Your task to perform on an android device: Clear the cart on amazon. Add "asus rog" to the cart on amazon, then select checkout. Image 0: 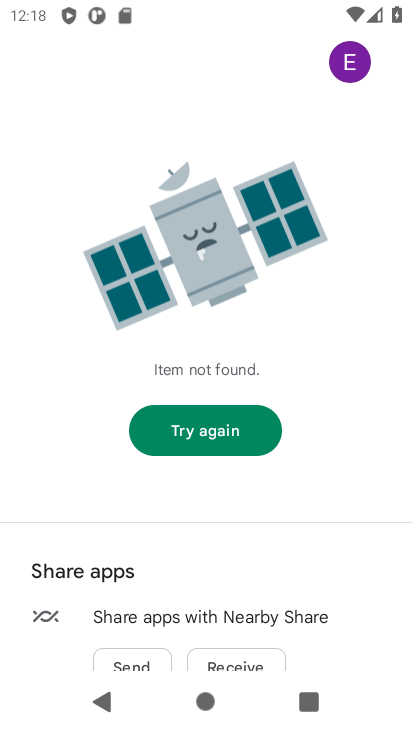
Step 0: press home button
Your task to perform on an android device: Clear the cart on amazon. Add "asus rog" to the cart on amazon, then select checkout. Image 1: 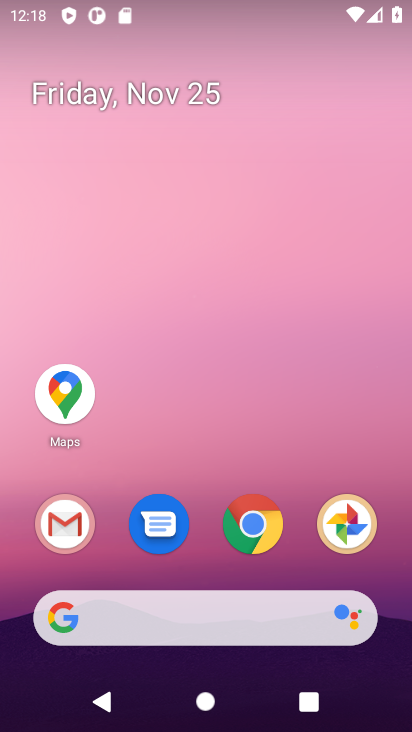
Step 1: click (253, 536)
Your task to perform on an android device: Clear the cart on amazon. Add "asus rog" to the cart on amazon, then select checkout. Image 2: 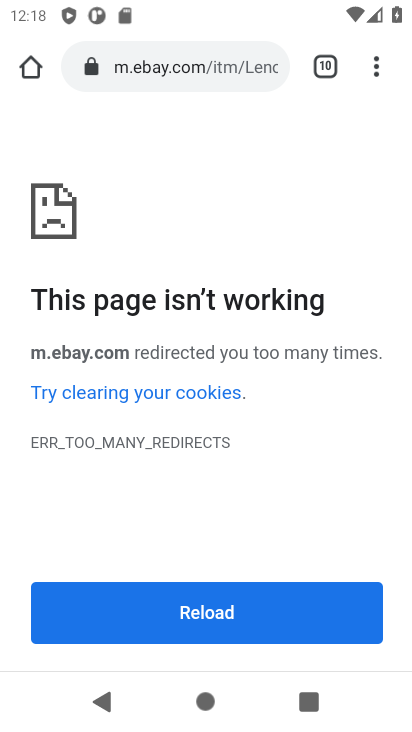
Step 2: click (158, 71)
Your task to perform on an android device: Clear the cart on amazon. Add "asus rog" to the cart on amazon, then select checkout. Image 3: 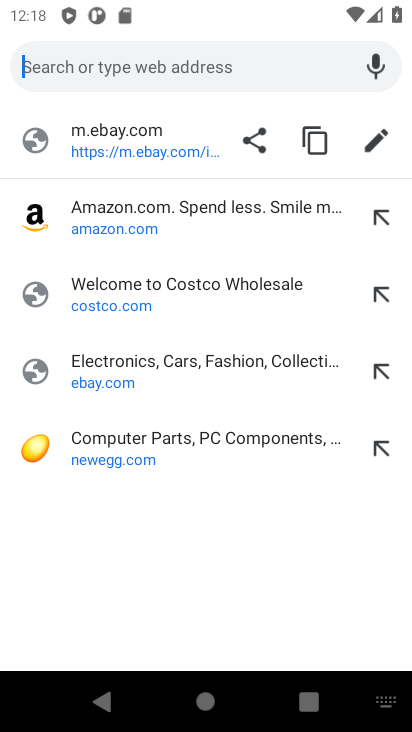
Step 3: click (94, 227)
Your task to perform on an android device: Clear the cart on amazon. Add "asus rog" to the cart on amazon, then select checkout. Image 4: 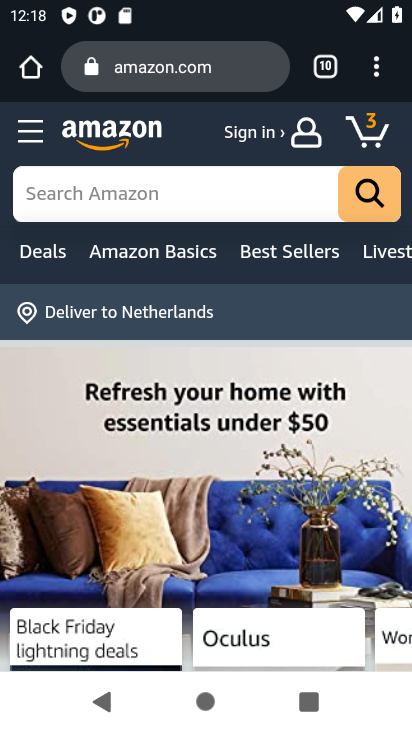
Step 4: click (364, 133)
Your task to perform on an android device: Clear the cart on amazon. Add "asus rog" to the cart on amazon, then select checkout. Image 5: 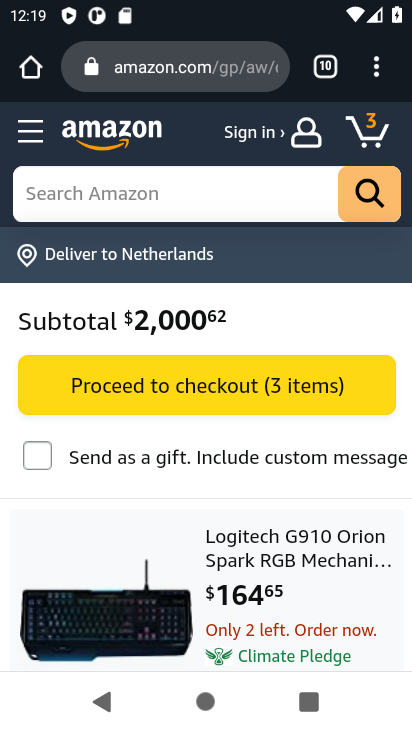
Step 5: drag from (132, 554) to (156, 316)
Your task to perform on an android device: Clear the cart on amazon. Add "asus rog" to the cart on amazon, then select checkout. Image 6: 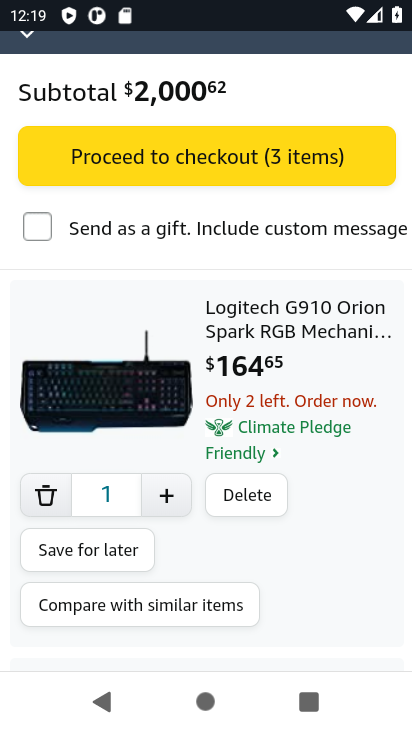
Step 6: click (253, 495)
Your task to perform on an android device: Clear the cart on amazon. Add "asus rog" to the cart on amazon, then select checkout. Image 7: 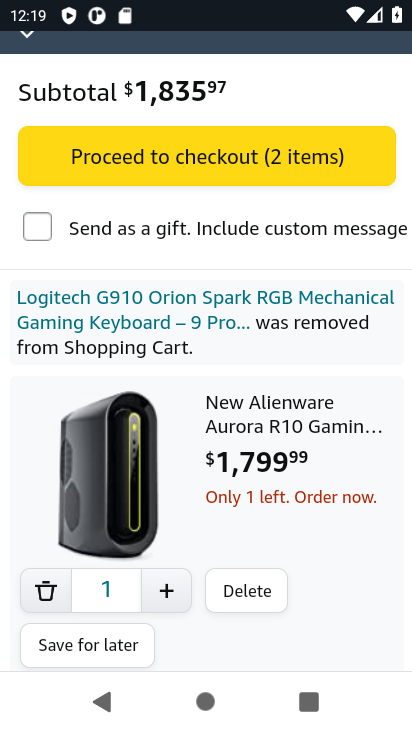
Step 7: click (244, 583)
Your task to perform on an android device: Clear the cart on amazon. Add "asus rog" to the cart on amazon, then select checkout. Image 8: 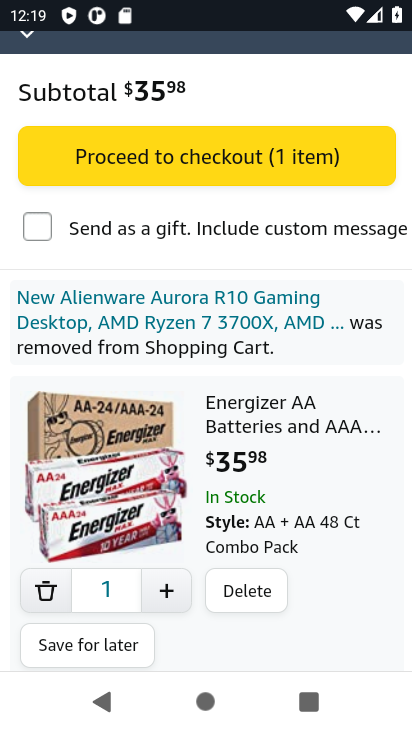
Step 8: click (244, 594)
Your task to perform on an android device: Clear the cart on amazon. Add "asus rog" to the cart on amazon, then select checkout. Image 9: 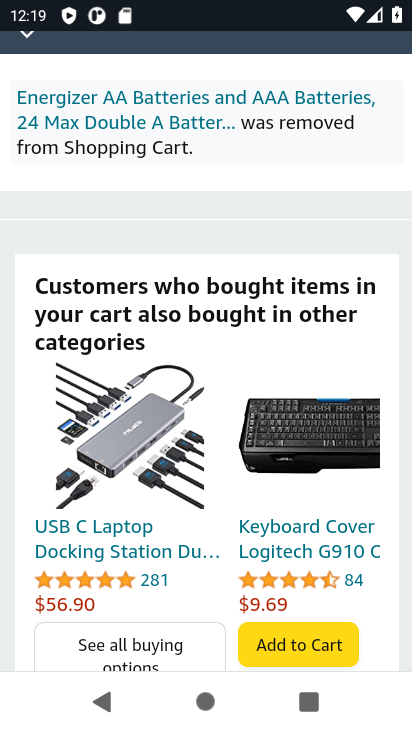
Step 9: drag from (205, 400) to (183, 591)
Your task to perform on an android device: Clear the cart on amazon. Add "asus rog" to the cart on amazon, then select checkout. Image 10: 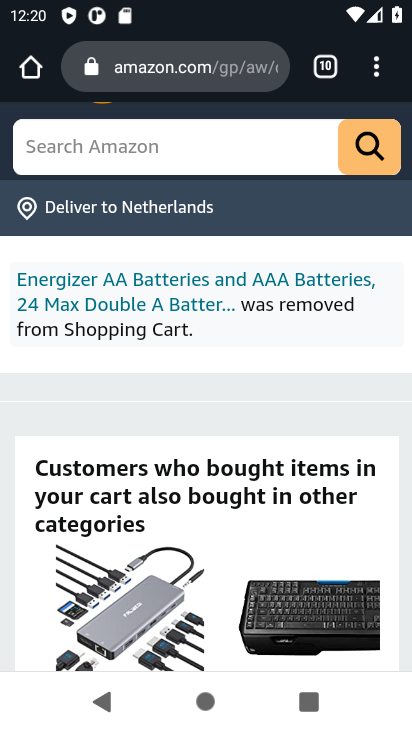
Step 10: click (107, 152)
Your task to perform on an android device: Clear the cart on amazon. Add "asus rog" to the cart on amazon, then select checkout. Image 11: 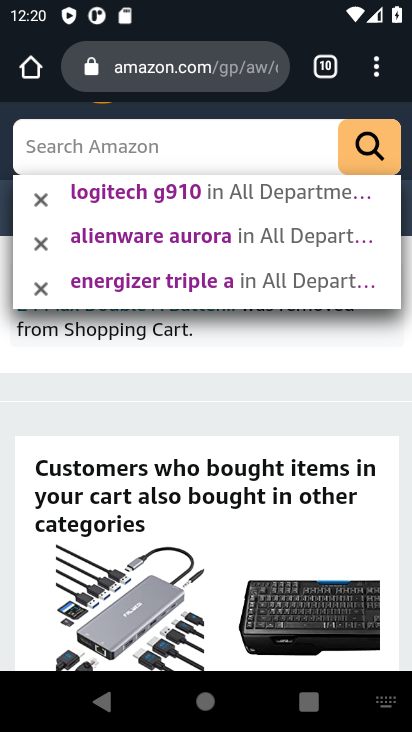
Step 11: type "asus rog"
Your task to perform on an android device: Clear the cart on amazon. Add "asus rog" to the cart on amazon, then select checkout. Image 12: 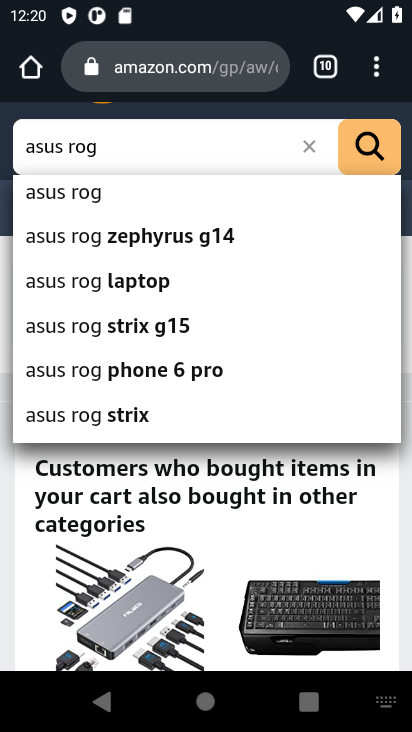
Step 12: click (65, 198)
Your task to perform on an android device: Clear the cart on amazon. Add "asus rog" to the cart on amazon, then select checkout. Image 13: 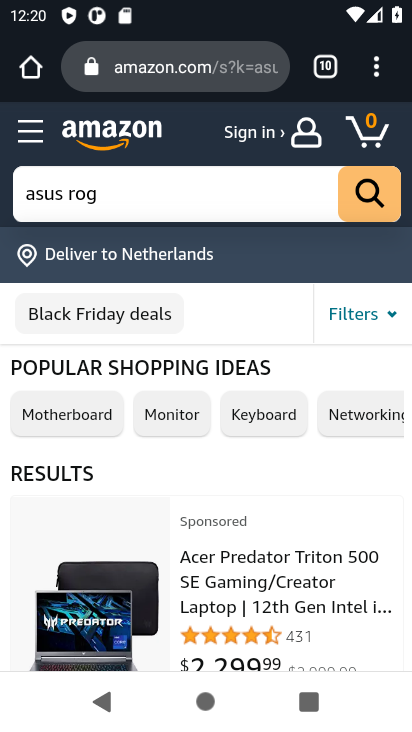
Step 13: drag from (131, 481) to (141, 373)
Your task to perform on an android device: Clear the cart on amazon. Add "asus rog" to the cart on amazon, then select checkout. Image 14: 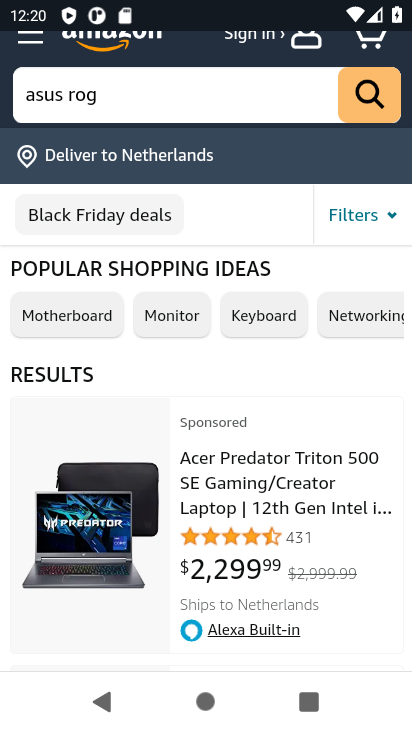
Step 14: drag from (140, 435) to (155, 303)
Your task to perform on an android device: Clear the cart on amazon. Add "asus rog" to the cart on amazon, then select checkout. Image 15: 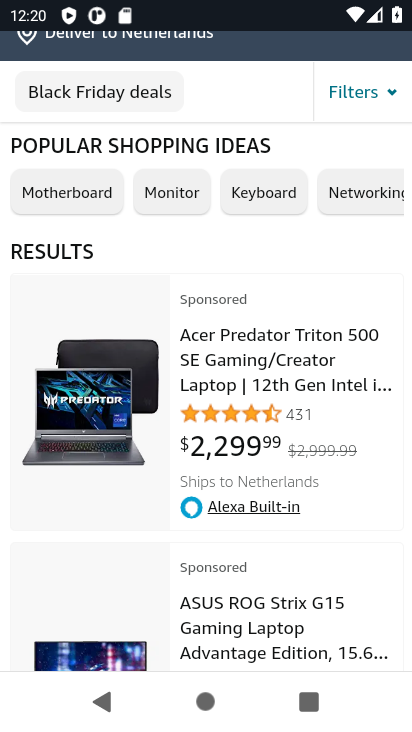
Step 15: drag from (135, 520) to (158, 358)
Your task to perform on an android device: Clear the cart on amazon. Add "asus rog" to the cart on amazon, then select checkout. Image 16: 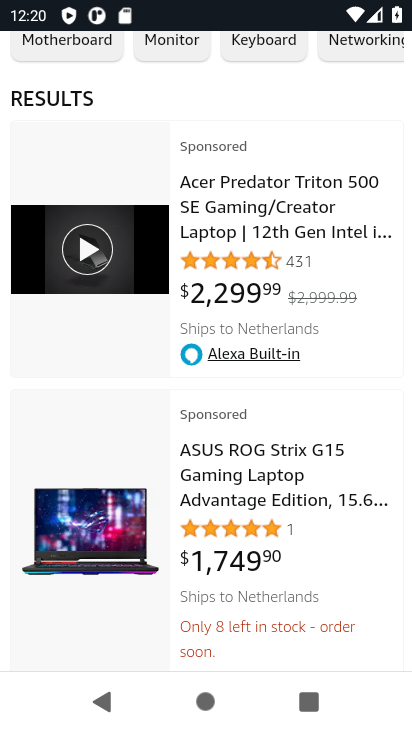
Step 16: drag from (113, 527) to (131, 396)
Your task to perform on an android device: Clear the cart on amazon. Add "asus rog" to the cart on amazon, then select checkout. Image 17: 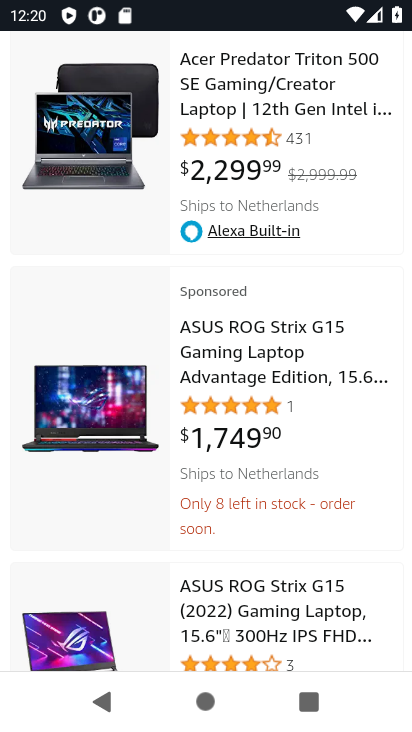
Step 17: click (229, 375)
Your task to perform on an android device: Clear the cart on amazon. Add "asus rog" to the cart on amazon, then select checkout. Image 18: 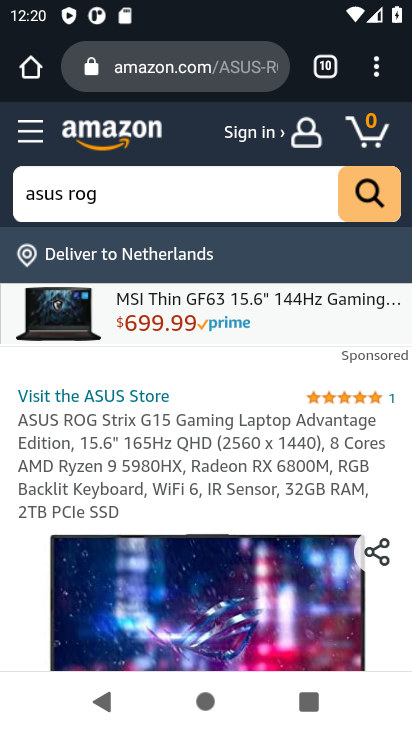
Step 18: drag from (190, 546) to (200, 234)
Your task to perform on an android device: Clear the cart on amazon. Add "asus rog" to the cart on amazon, then select checkout. Image 19: 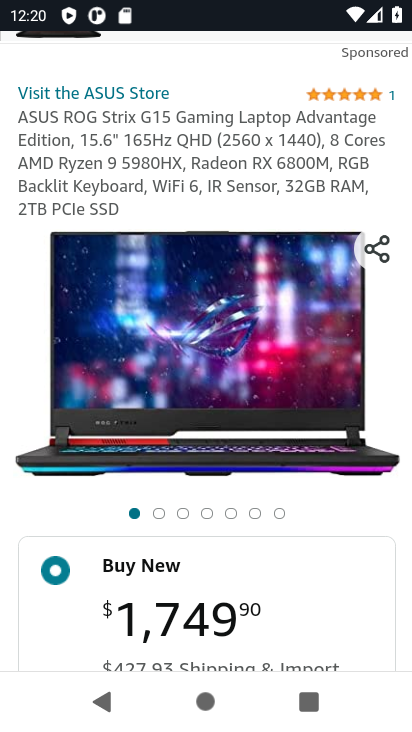
Step 19: drag from (202, 527) to (218, 301)
Your task to perform on an android device: Clear the cart on amazon. Add "asus rog" to the cart on amazon, then select checkout. Image 20: 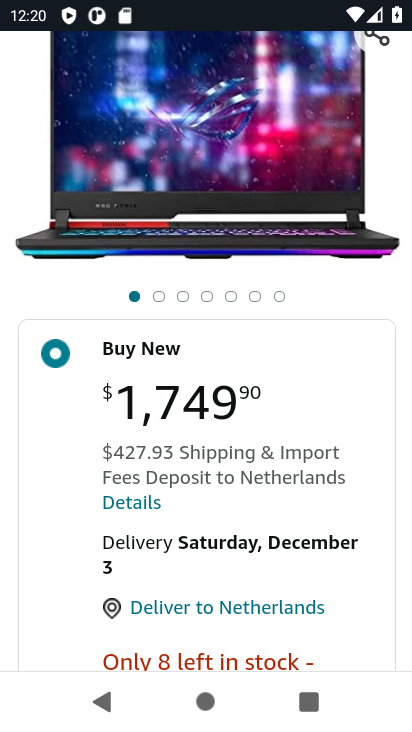
Step 20: drag from (205, 528) to (205, 279)
Your task to perform on an android device: Clear the cart on amazon. Add "asus rog" to the cart on amazon, then select checkout. Image 21: 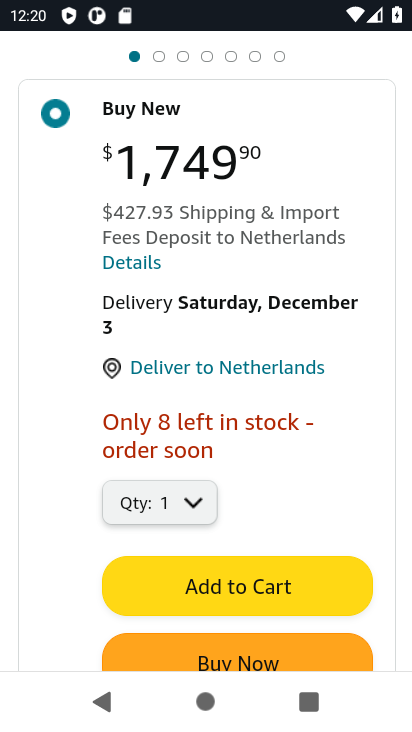
Step 21: click (215, 586)
Your task to perform on an android device: Clear the cart on amazon. Add "asus rog" to the cart on amazon, then select checkout. Image 22: 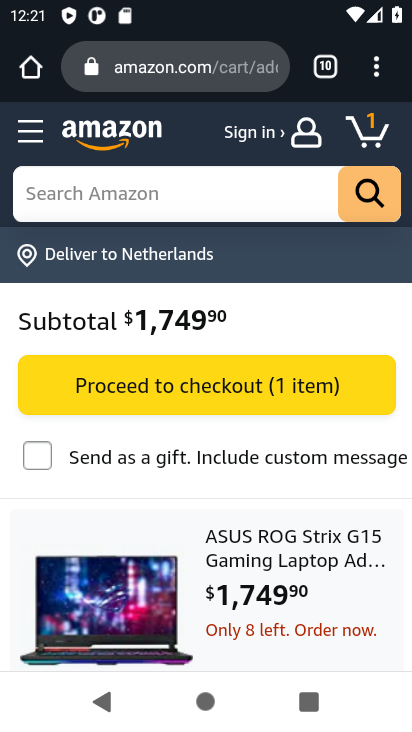
Step 22: click (191, 389)
Your task to perform on an android device: Clear the cart on amazon. Add "asus rog" to the cart on amazon, then select checkout. Image 23: 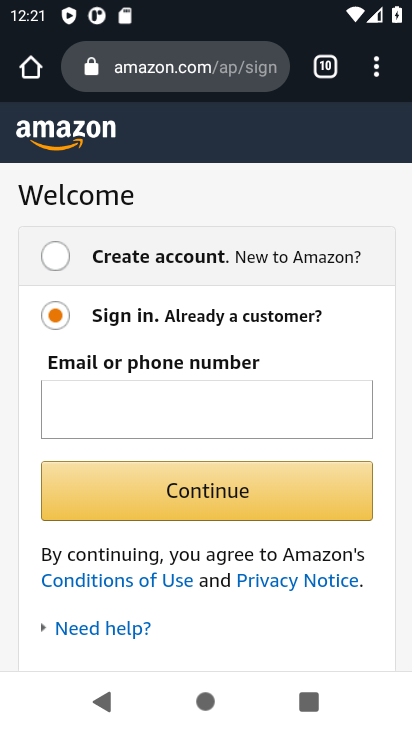
Step 23: task complete